Your task to perform on an android device: change the clock display to show seconds Image 0: 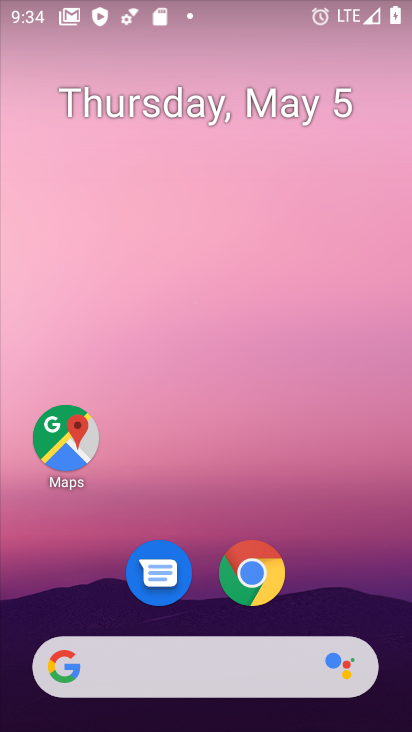
Step 0: drag from (194, 559) to (301, 44)
Your task to perform on an android device: change the clock display to show seconds Image 1: 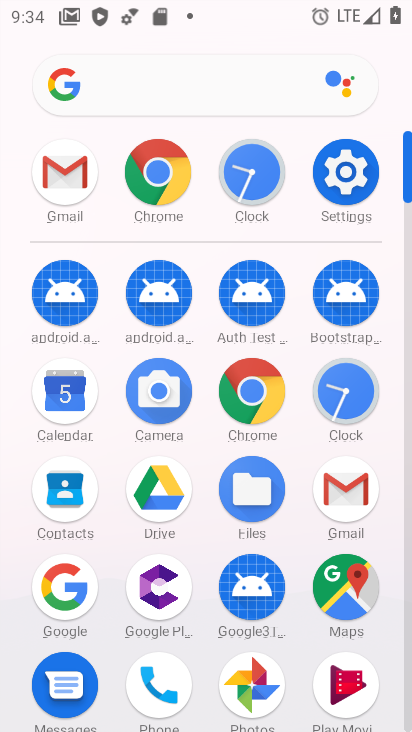
Step 1: click (346, 395)
Your task to perform on an android device: change the clock display to show seconds Image 2: 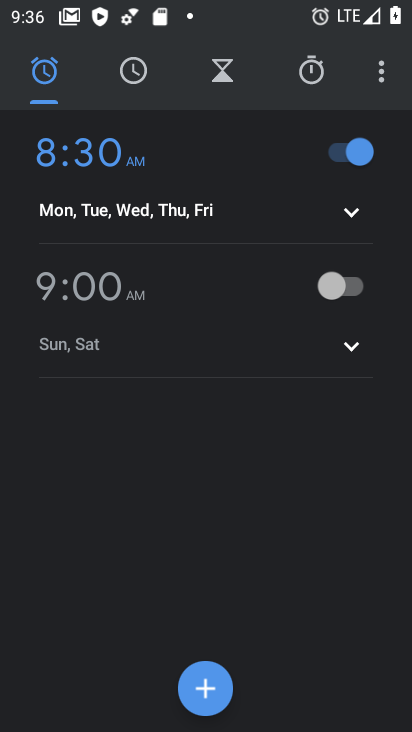
Step 2: click (380, 60)
Your task to perform on an android device: change the clock display to show seconds Image 3: 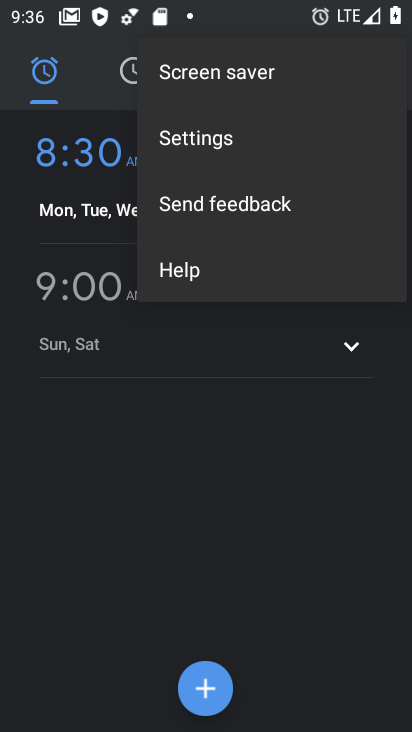
Step 3: click (217, 154)
Your task to perform on an android device: change the clock display to show seconds Image 4: 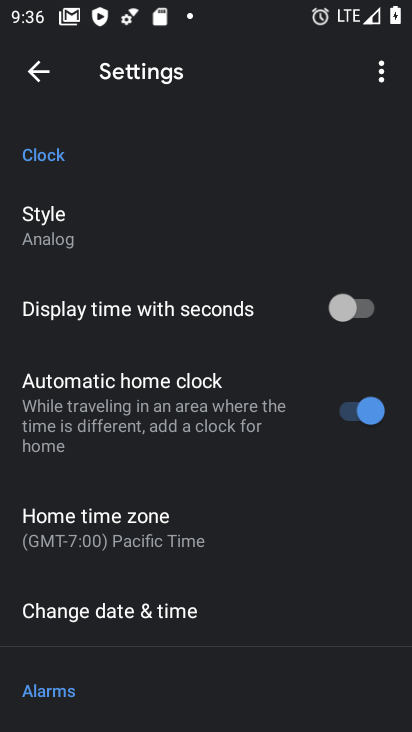
Step 4: click (75, 239)
Your task to perform on an android device: change the clock display to show seconds Image 5: 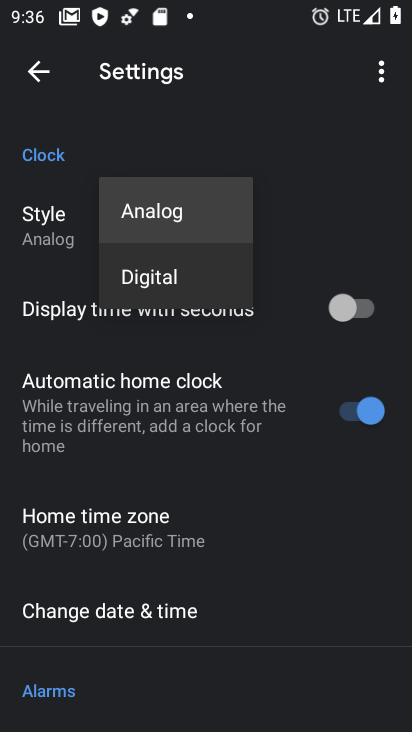
Step 5: click (135, 280)
Your task to perform on an android device: change the clock display to show seconds Image 6: 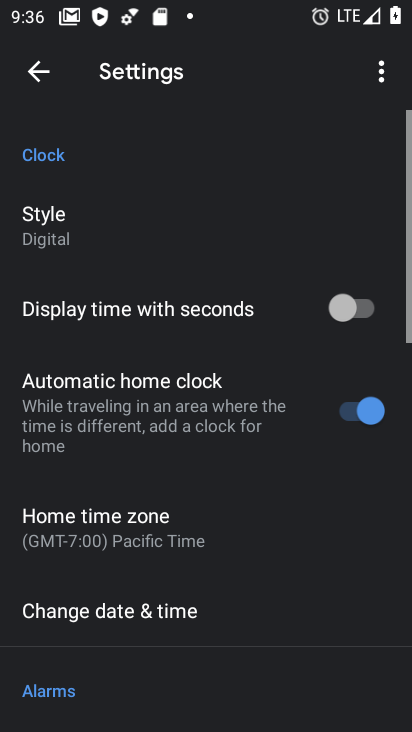
Step 6: click (346, 310)
Your task to perform on an android device: change the clock display to show seconds Image 7: 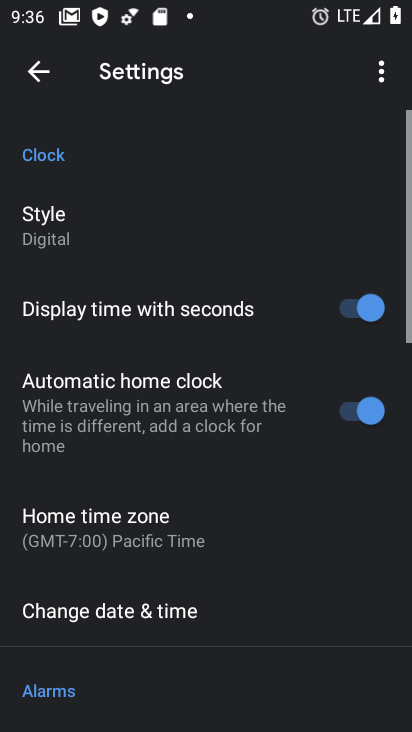
Step 7: task complete